Your task to perform on an android device: Go to CNN.com Image 0: 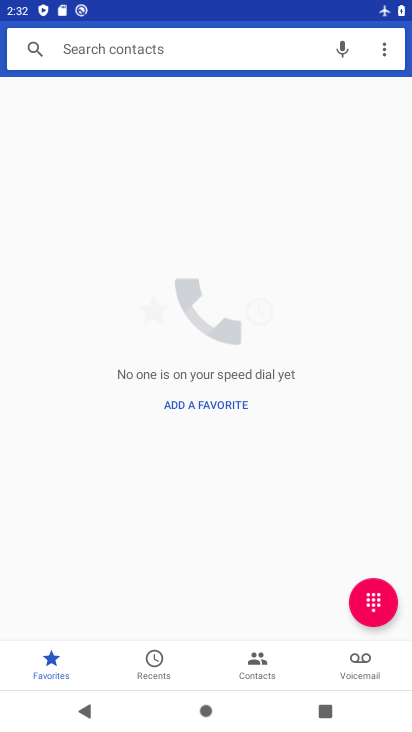
Step 0: press home button
Your task to perform on an android device: Go to CNN.com Image 1: 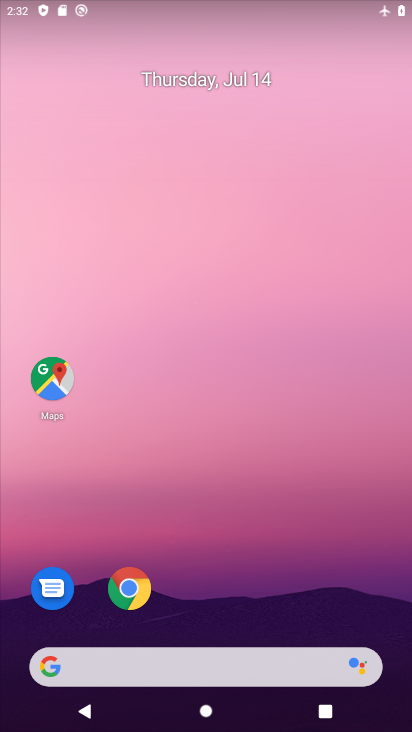
Step 1: click (142, 593)
Your task to perform on an android device: Go to CNN.com Image 2: 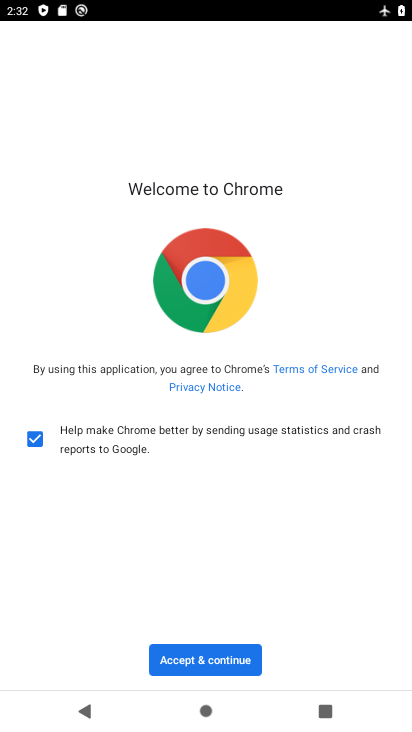
Step 2: click (216, 652)
Your task to perform on an android device: Go to CNN.com Image 3: 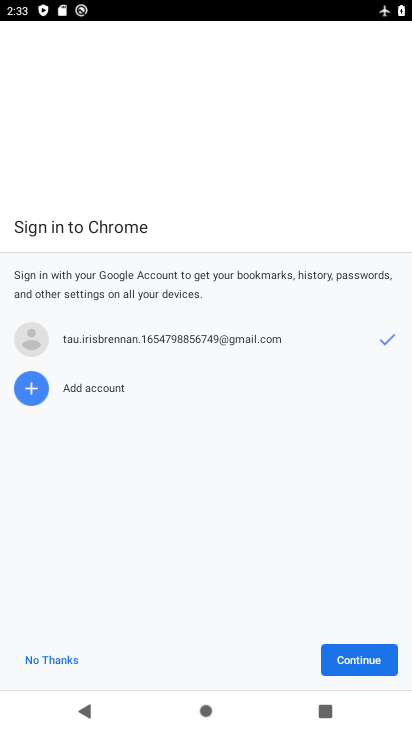
Step 3: click (337, 675)
Your task to perform on an android device: Go to CNN.com Image 4: 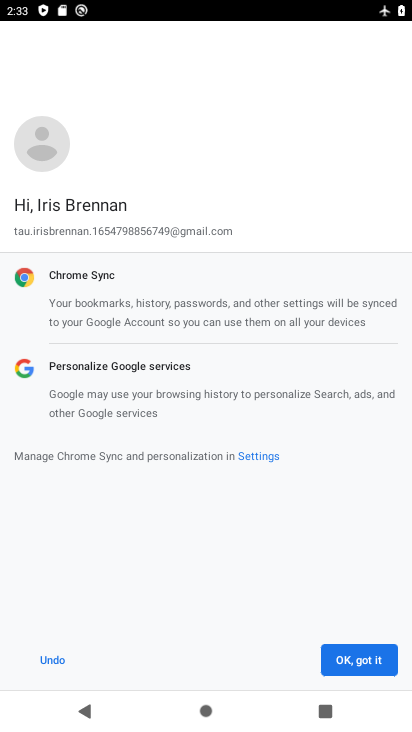
Step 4: click (382, 671)
Your task to perform on an android device: Go to CNN.com Image 5: 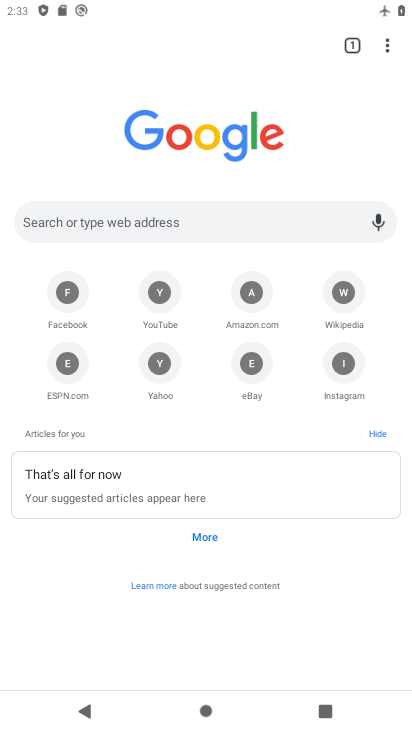
Step 5: click (167, 209)
Your task to perform on an android device: Go to CNN.com Image 6: 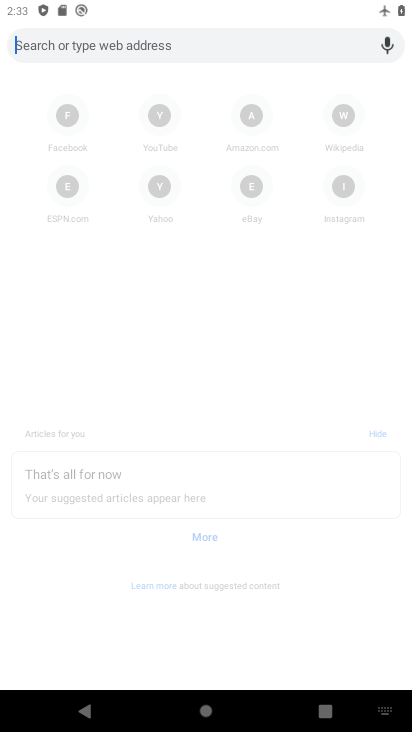
Step 6: type "cnn.com"
Your task to perform on an android device: Go to CNN.com Image 7: 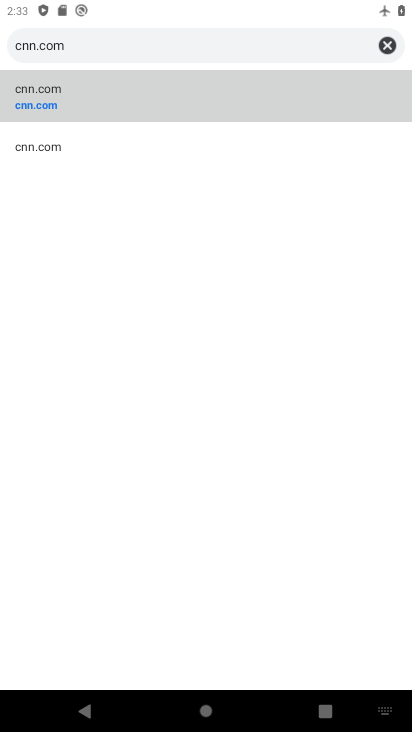
Step 7: click (62, 112)
Your task to perform on an android device: Go to CNN.com Image 8: 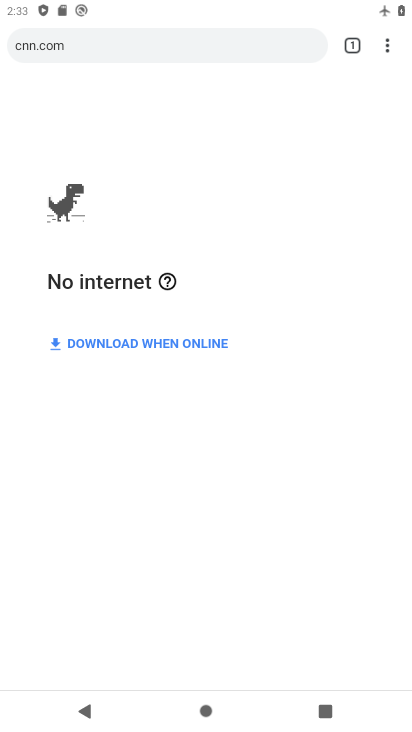
Step 8: task complete